Your task to perform on an android device: Open Google Image 0: 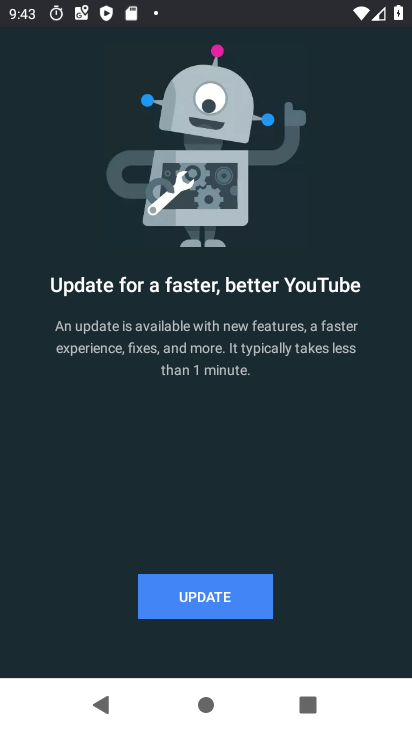
Step 0: press home button
Your task to perform on an android device: Open Google Image 1: 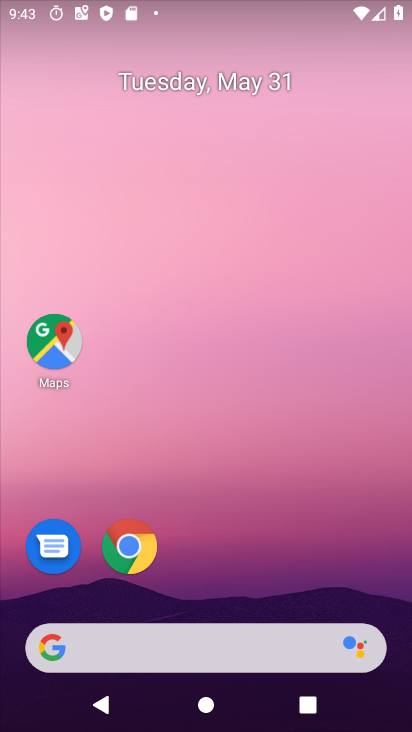
Step 1: drag from (308, 576) to (316, 28)
Your task to perform on an android device: Open Google Image 2: 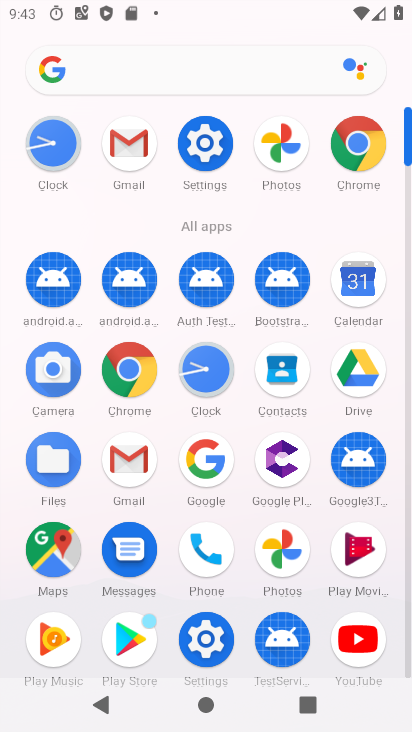
Step 2: click (201, 460)
Your task to perform on an android device: Open Google Image 3: 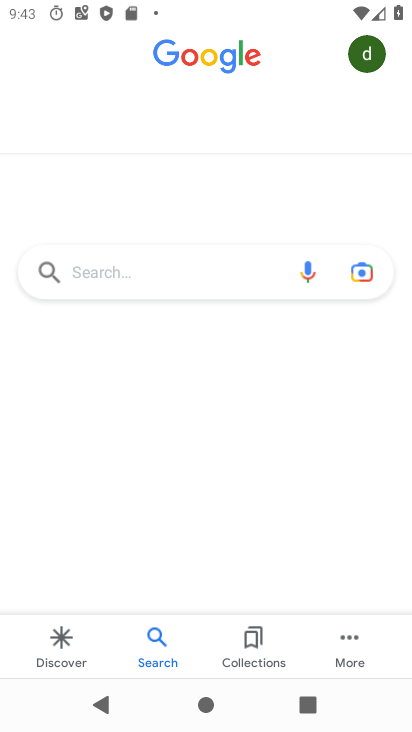
Step 3: task complete